Your task to perform on an android device: Go to internet settings Image 0: 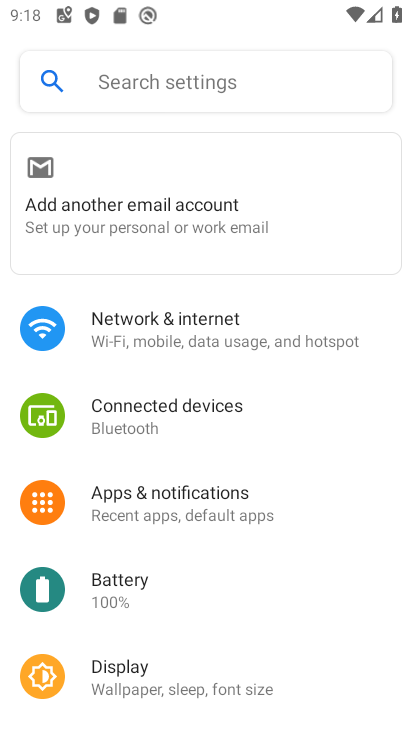
Step 0: press home button
Your task to perform on an android device: Go to internet settings Image 1: 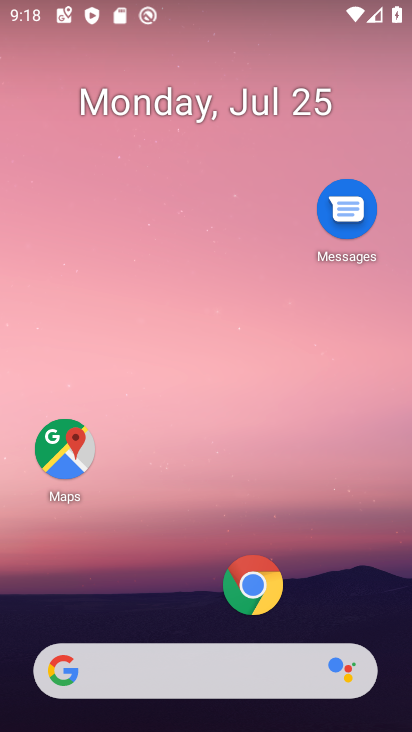
Step 1: drag from (197, 679) to (305, 91)
Your task to perform on an android device: Go to internet settings Image 2: 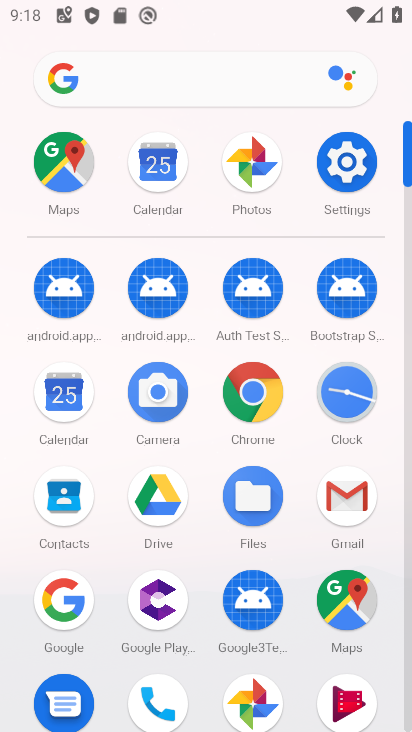
Step 2: click (349, 159)
Your task to perform on an android device: Go to internet settings Image 3: 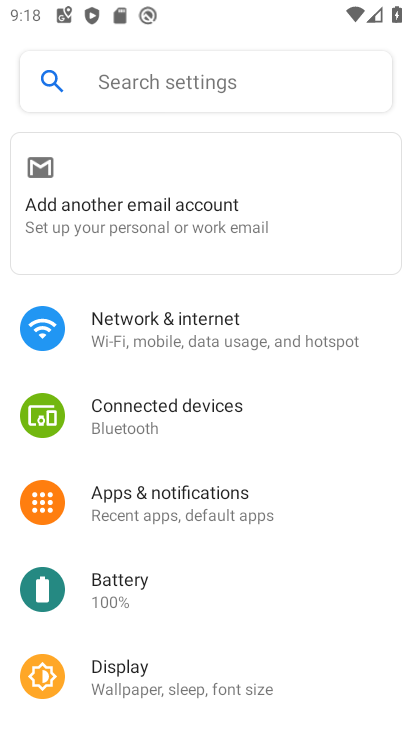
Step 3: click (168, 322)
Your task to perform on an android device: Go to internet settings Image 4: 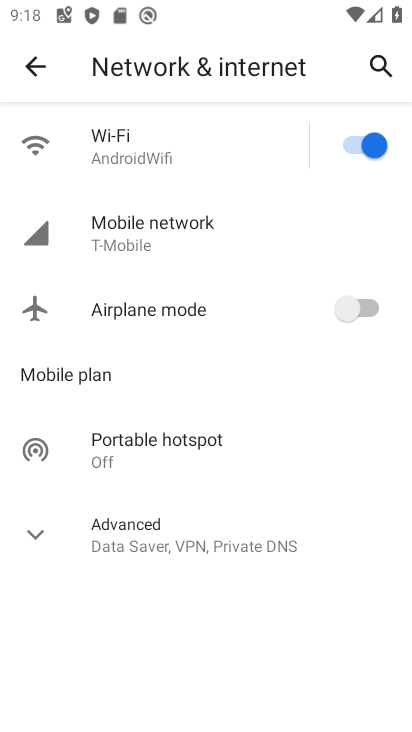
Step 4: task complete